Your task to perform on an android device: Go to calendar. Show me events next week Image 0: 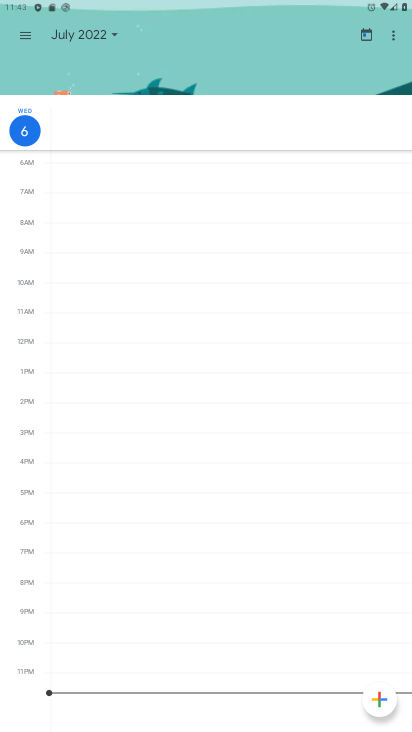
Step 0: press home button
Your task to perform on an android device: Go to calendar. Show me events next week Image 1: 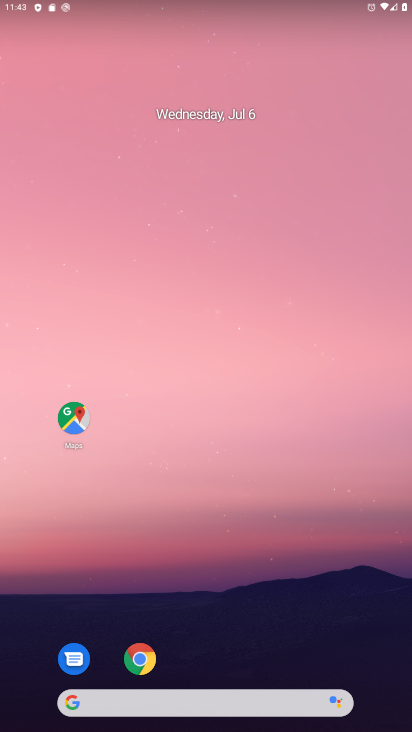
Step 1: click (221, 114)
Your task to perform on an android device: Go to calendar. Show me events next week Image 2: 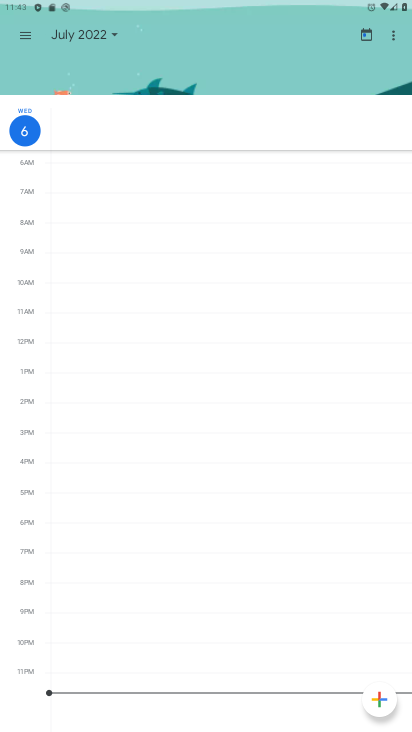
Step 2: click (27, 36)
Your task to perform on an android device: Go to calendar. Show me events next week Image 3: 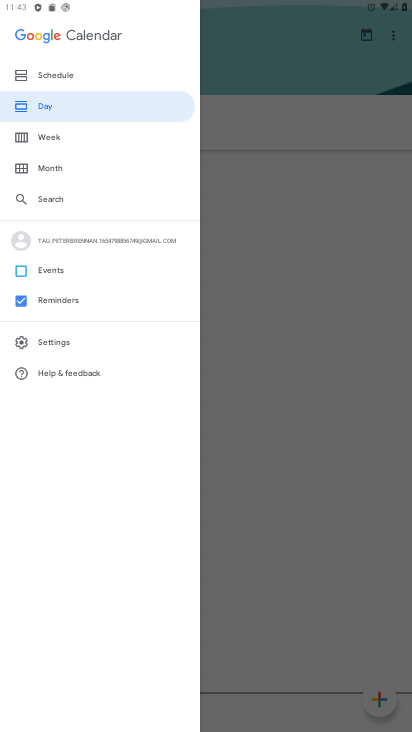
Step 3: click (19, 272)
Your task to perform on an android device: Go to calendar. Show me events next week Image 4: 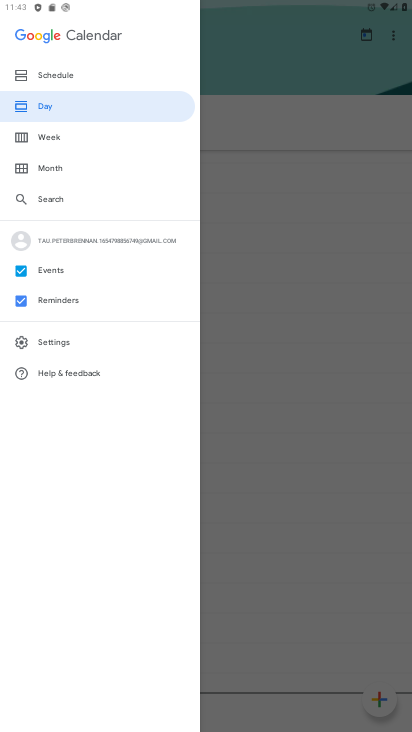
Step 4: click (20, 299)
Your task to perform on an android device: Go to calendar. Show me events next week Image 5: 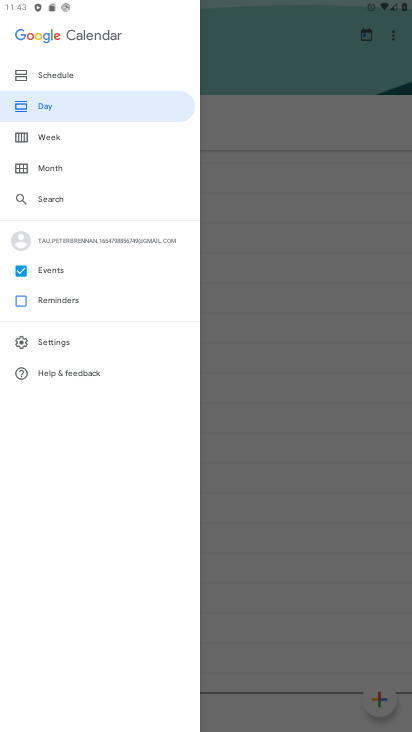
Step 5: click (78, 140)
Your task to perform on an android device: Go to calendar. Show me events next week Image 6: 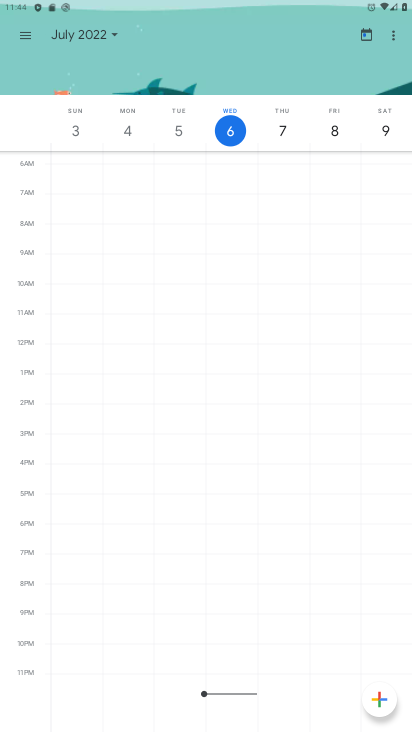
Step 6: task complete